Your task to perform on an android device: Open the stopwatch Image 0: 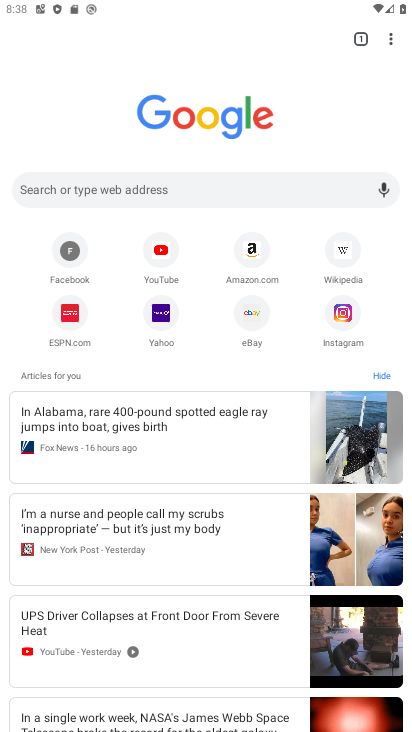
Step 0: press home button
Your task to perform on an android device: Open the stopwatch Image 1: 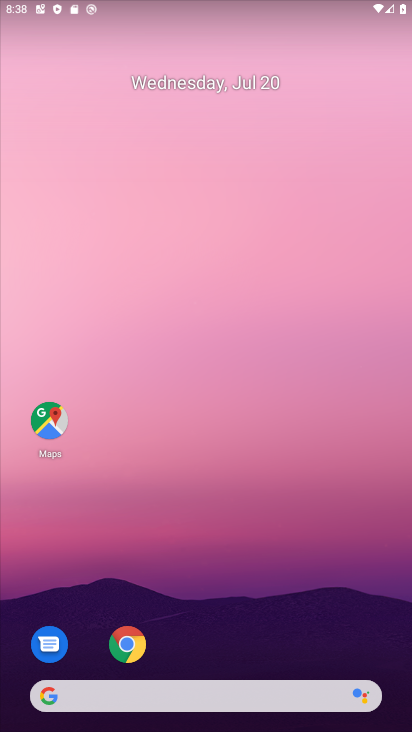
Step 1: drag from (276, 609) to (274, 357)
Your task to perform on an android device: Open the stopwatch Image 2: 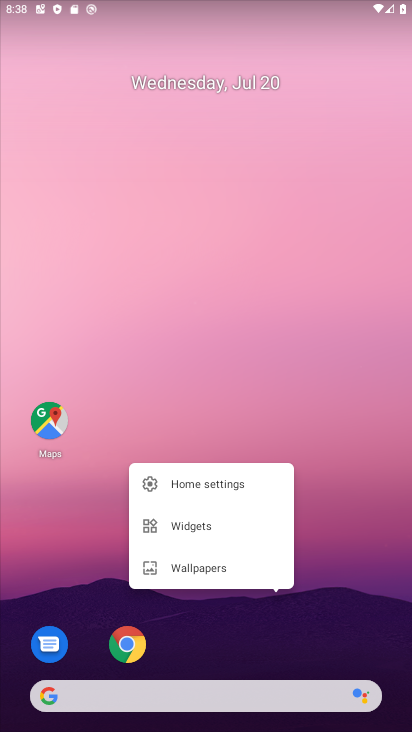
Step 2: click (381, 570)
Your task to perform on an android device: Open the stopwatch Image 3: 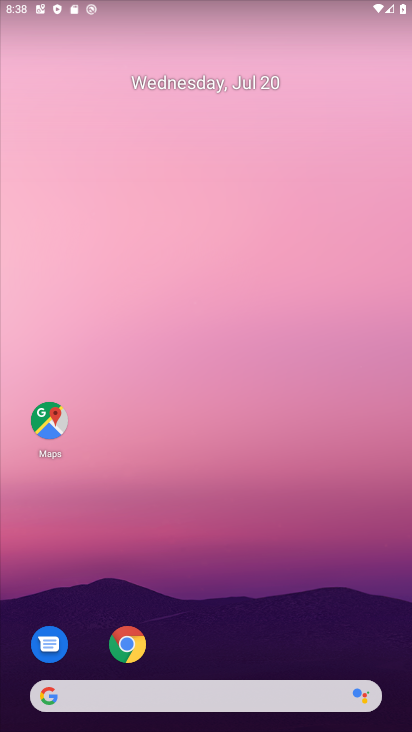
Step 3: drag from (298, 593) to (289, 265)
Your task to perform on an android device: Open the stopwatch Image 4: 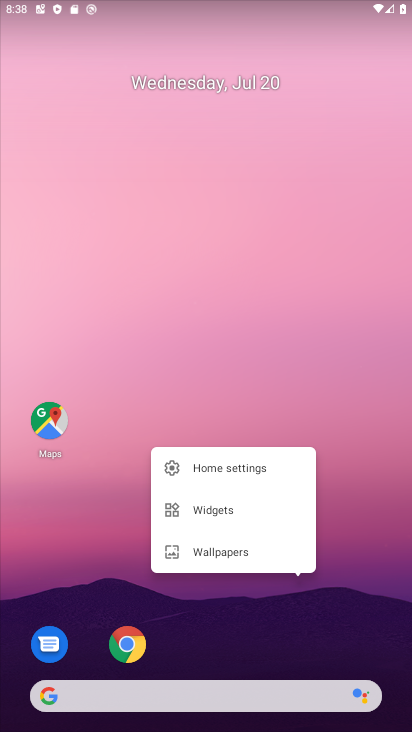
Step 4: click (289, 265)
Your task to perform on an android device: Open the stopwatch Image 5: 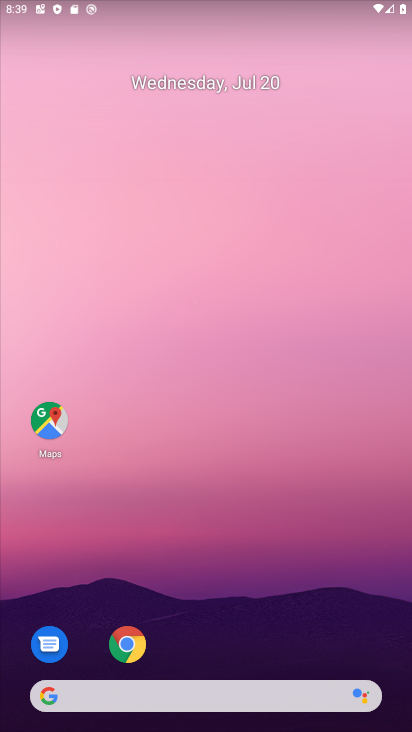
Step 5: drag from (291, 581) to (275, 214)
Your task to perform on an android device: Open the stopwatch Image 6: 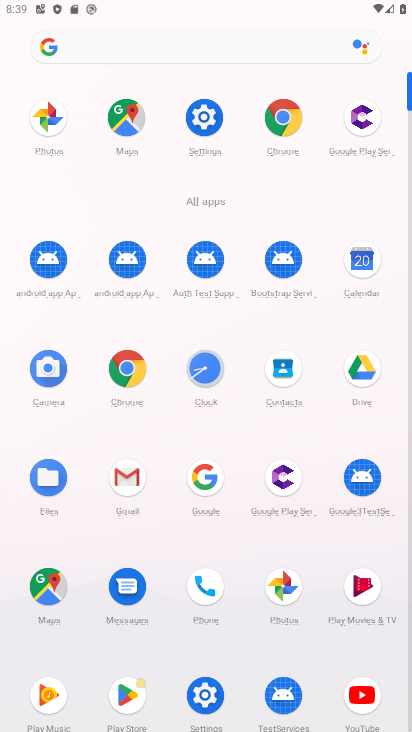
Step 6: click (215, 375)
Your task to perform on an android device: Open the stopwatch Image 7: 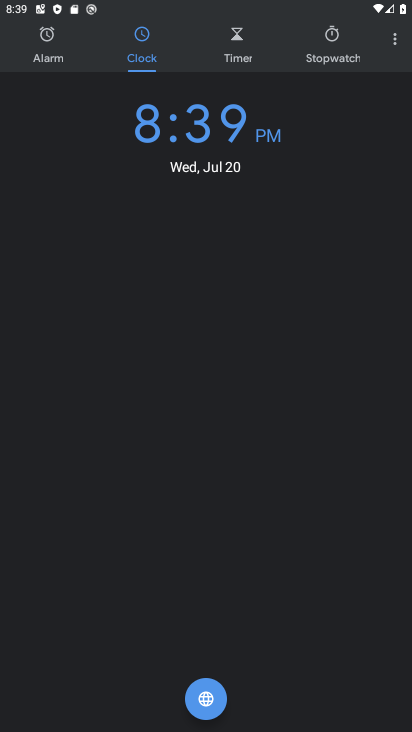
Step 7: click (332, 45)
Your task to perform on an android device: Open the stopwatch Image 8: 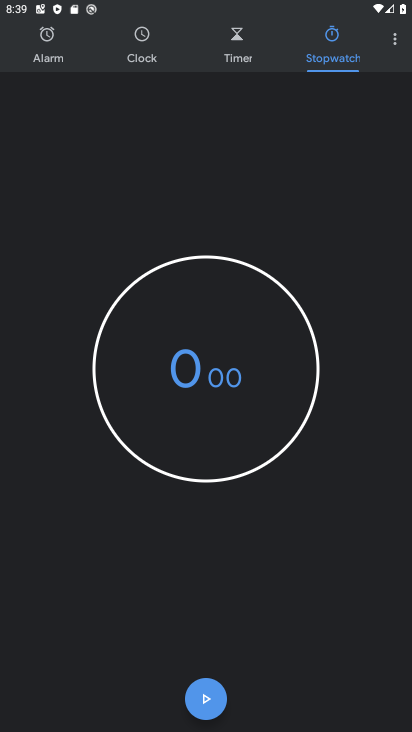
Step 8: task complete